Your task to perform on an android device: turn off location history Image 0: 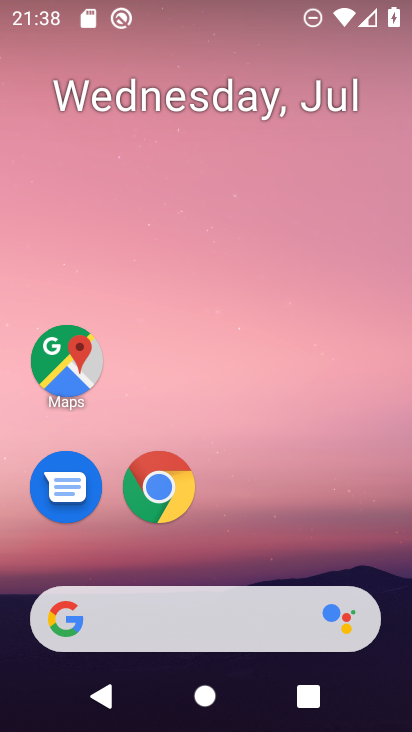
Step 0: drag from (339, 490) to (365, 98)
Your task to perform on an android device: turn off location history Image 1: 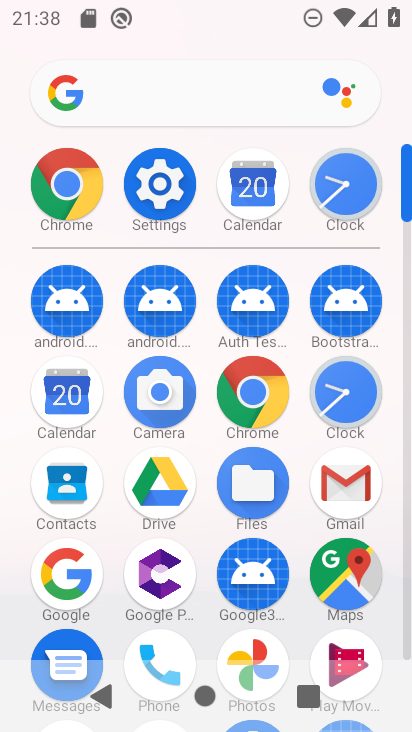
Step 1: click (164, 190)
Your task to perform on an android device: turn off location history Image 2: 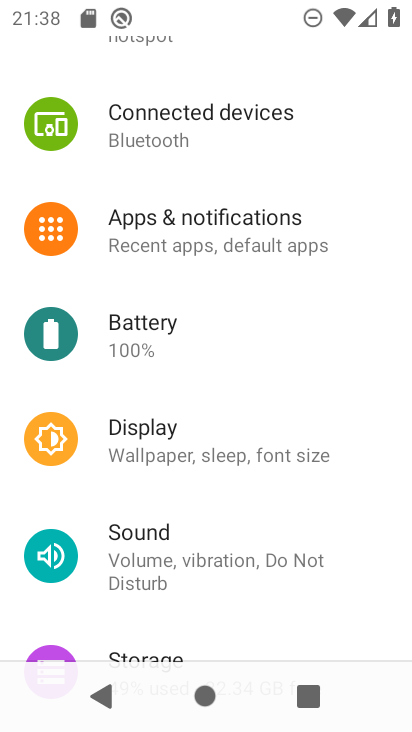
Step 2: drag from (336, 193) to (351, 289)
Your task to perform on an android device: turn off location history Image 3: 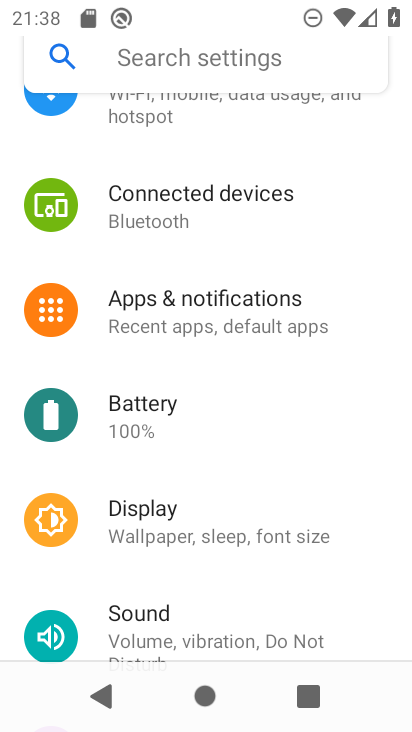
Step 3: drag from (349, 173) to (353, 318)
Your task to perform on an android device: turn off location history Image 4: 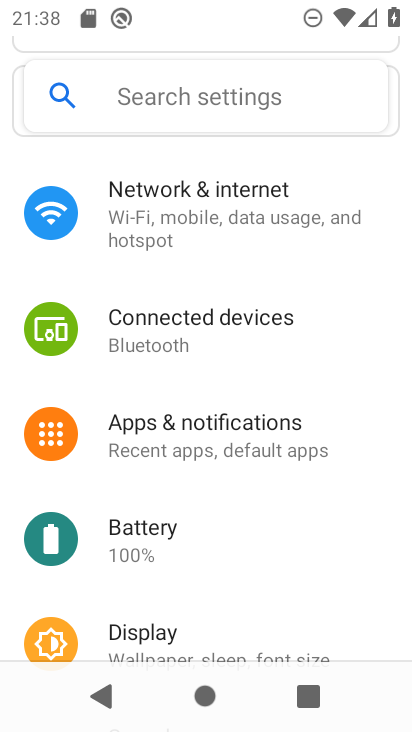
Step 4: drag from (369, 452) to (372, 328)
Your task to perform on an android device: turn off location history Image 5: 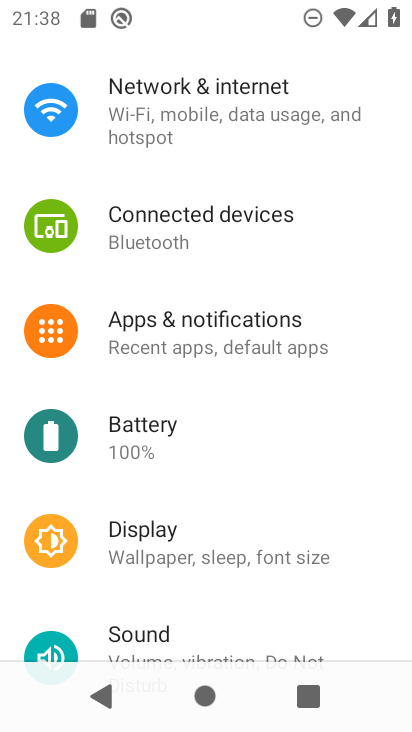
Step 5: drag from (348, 454) to (351, 348)
Your task to perform on an android device: turn off location history Image 6: 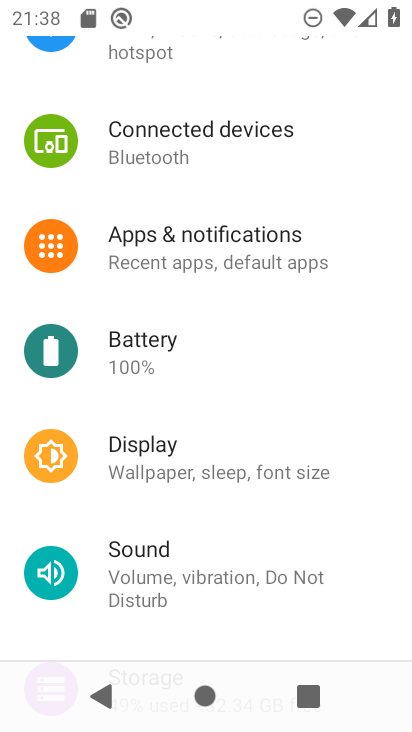
Step 6: drag from (362, 504) to (357, 389)
Your task to perform on an android device: turn off location history Image 7: 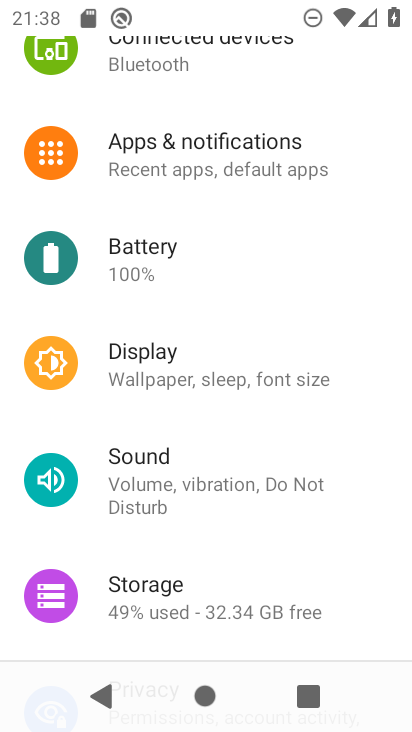
Step 7: drag from (357, 505) to (354, 392)
Your task to perform on an android device: turn off location history Image 8: 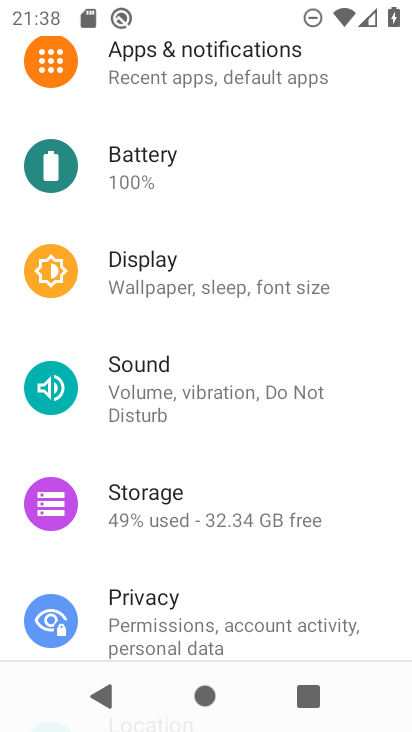
Step 8: drag from (351, 427) to (361, 344)
Your task to perform on an android device: turn off location history Image 9: 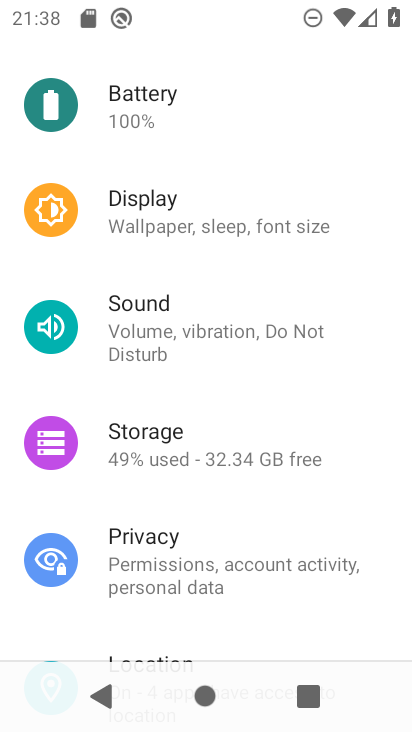
Step 9: drag from (356, 461) to (356, 358)
Your task to perform on an android device: turn off location history Image 10: 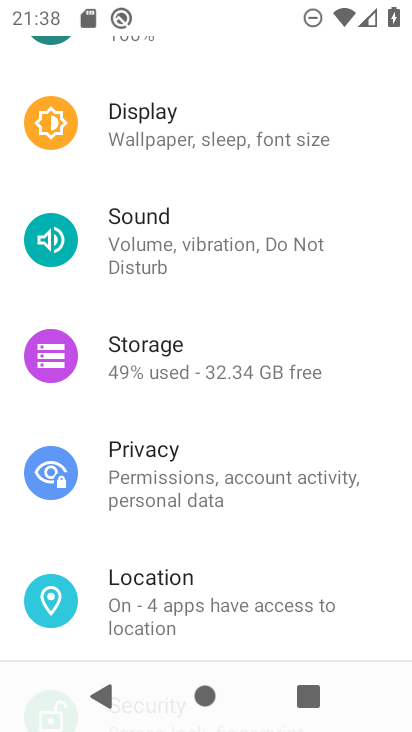
Step 10: drag from (357, 550) to (358, 401)
Your task to perform on an android device: turn off location history Image 11: 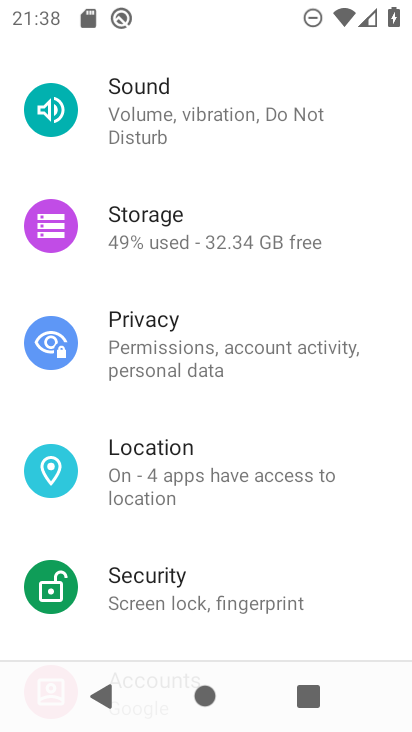
Step 11: click (318, 488)
Your task to perform on an android device: turn off location history Image 12: 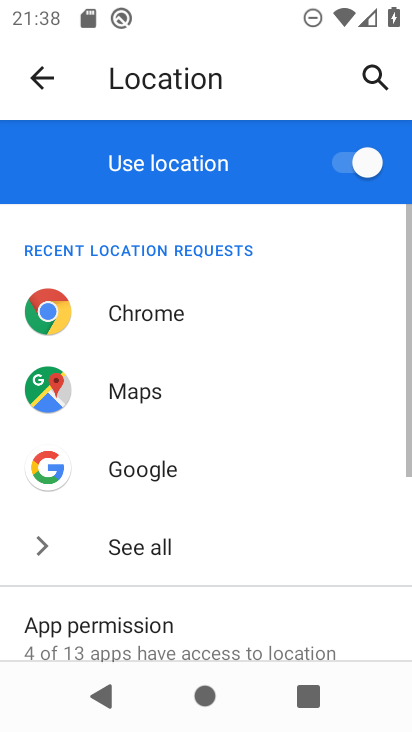
Step 12: drag from (331, 530) to (329, 424)
Your task to perform on an android device: turn off location history Image 13: 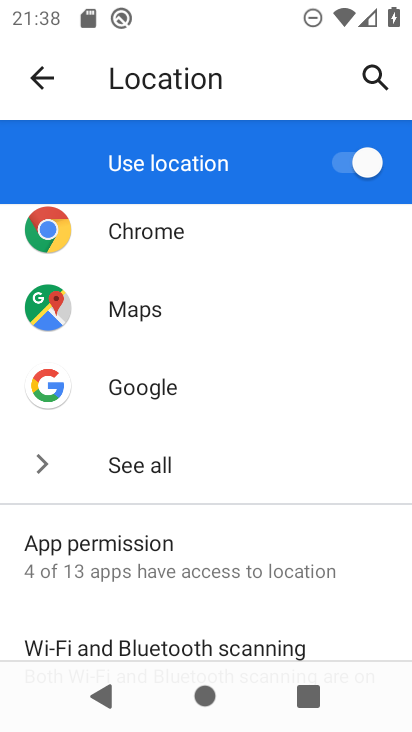
Step 13: drag from (356, 561) to (364, 463)
Your task to perform on an android device: turn off location history Image 14: 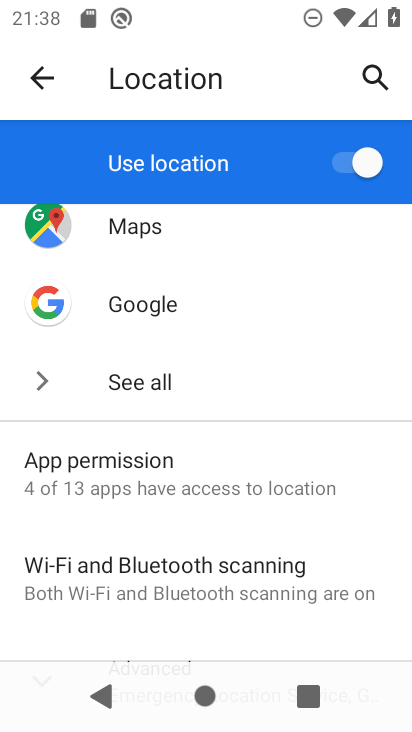
Step 14: drag from (352, 612) to (356, 441)
Your task to perform on an android device: turn off location history Image 15: 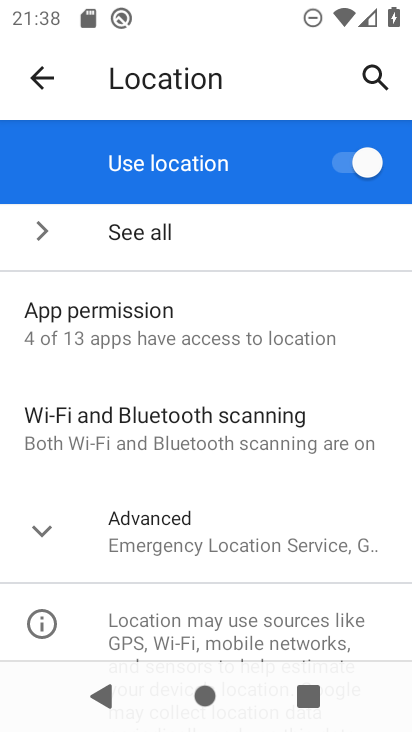
Step 15: click (346, 538)
Your task to perform on an android device: turn off location history Image 16: 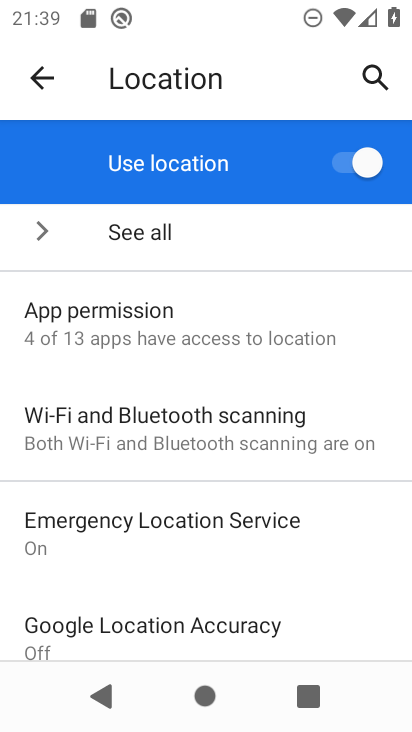
Step 16: task complete